Your task to perform on an android device: toggle translation in the chrome app Image 0: 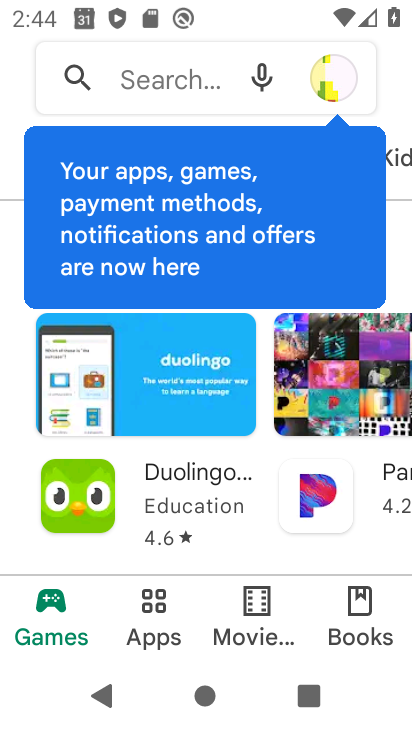
Step 0: press home button
Your task to perform on an android device: toggle translation in the chrome app Image 1: 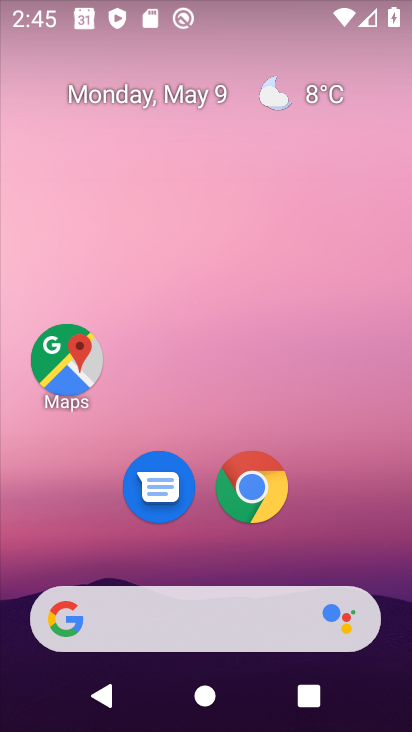
Step 1: drag from (208, 555) to (208, 63)
Your task to perform on an android device: toggle translation in the chrome app Image 2: 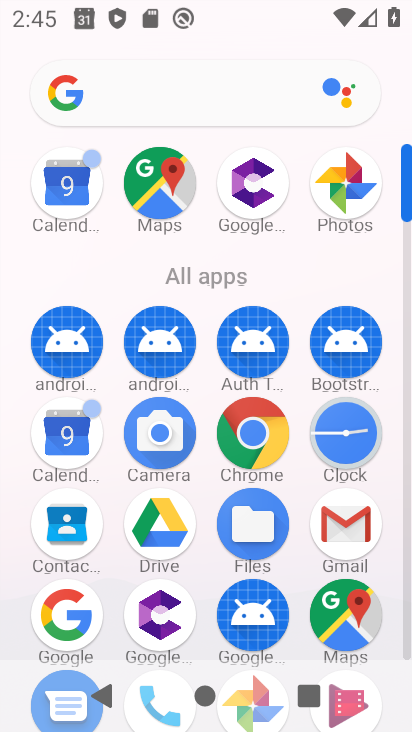
Step 2: click (254, 431)
Your task to perform on an android device: toggle translation in the chrome app Image 3: 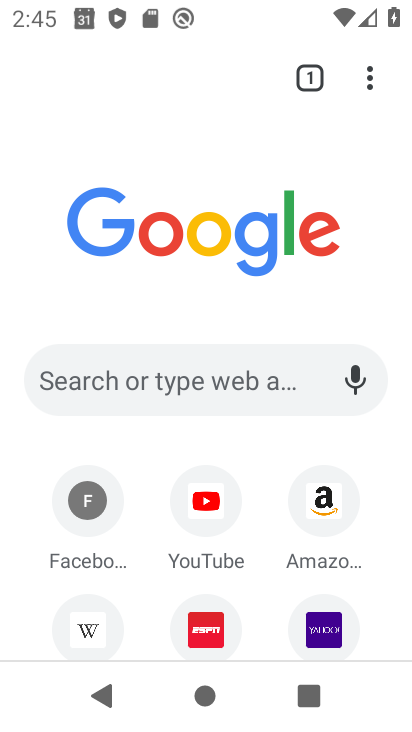
Step 3: click (365, 72)
Your task to perform on an android device: toggle translation in the chrome app Image 4: 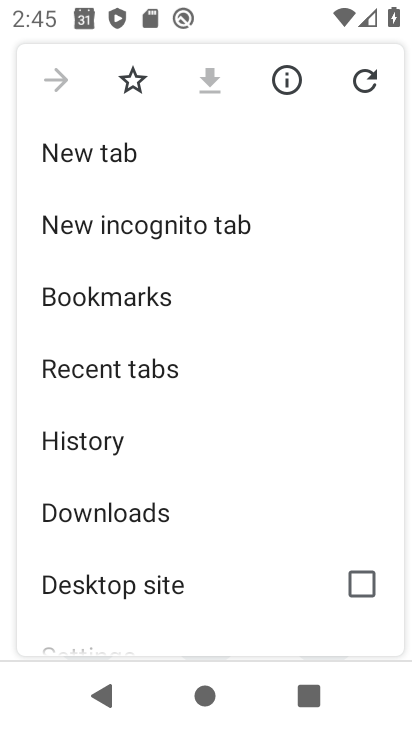
Step 4: drag from (187, 610) to (161, 188)
Your task to perform on an android device: toggle translation in the chrome app Image 5: 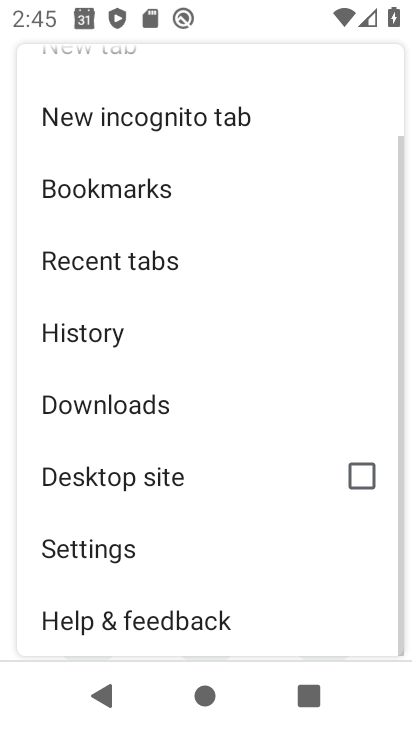
Step 5: click (141, 542)
Your task to perform on an android device: toggle translation in the chrome app Image 6: 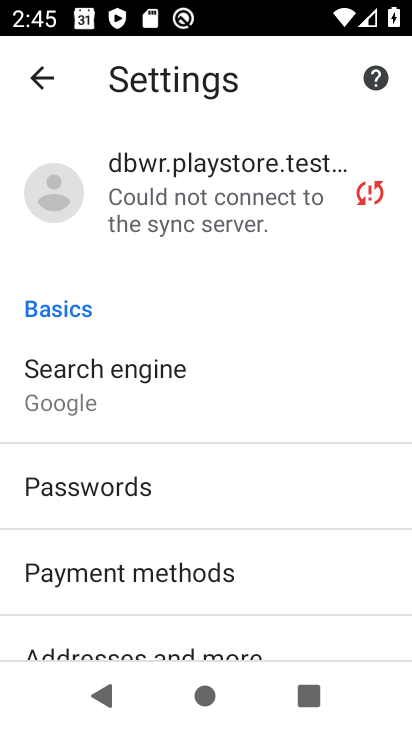
Step 6: drag from (198, 606) to (191, 253)
Your task to perform on an android device: toggle translation in the chrome app Image 7: 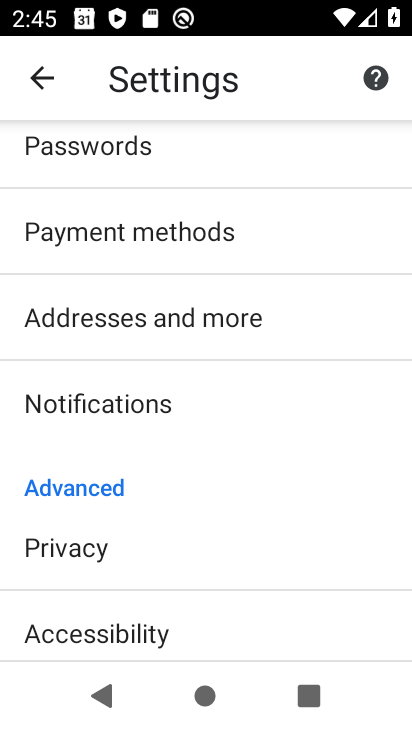
Step 7: drag from (190, 617) to (179, 370)
Your task to perform on an android device: toggle translation in the chrome app Image 8: 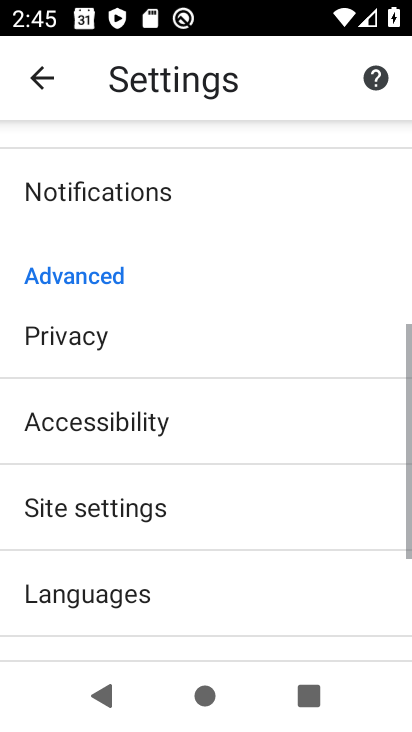
Step 8: click (178, 335)
Your task to perform on an android device: toggle translation in the chrome app Image 9: 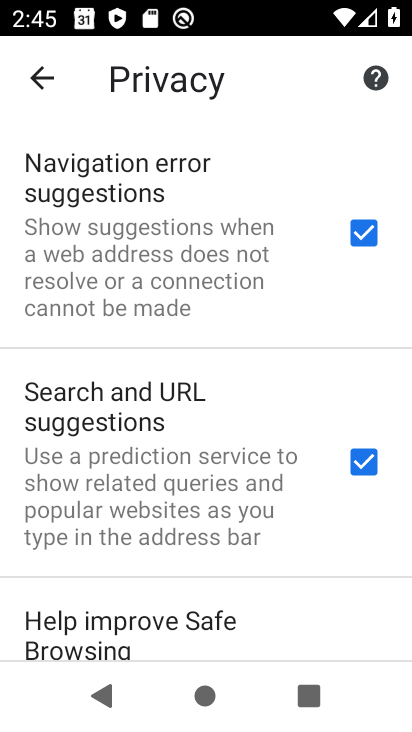
Step 9: click (44, 91)
Your task to perform on an android device: toggle translation in the chrome app Image 10: 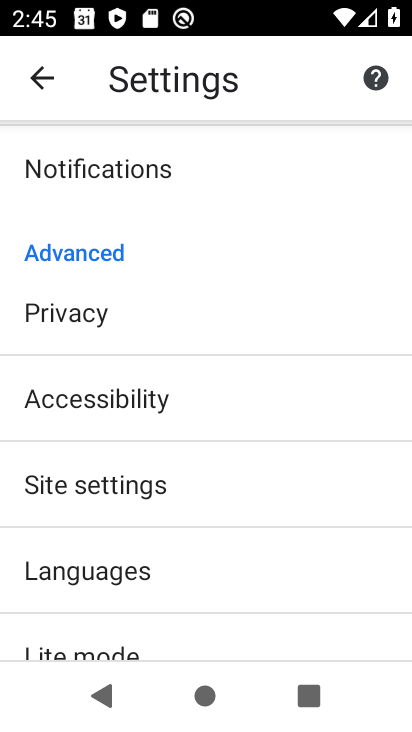
Step 10: click (152, 578)
Your task to perform on an android device: toggle translation in the chrome app Image 11: 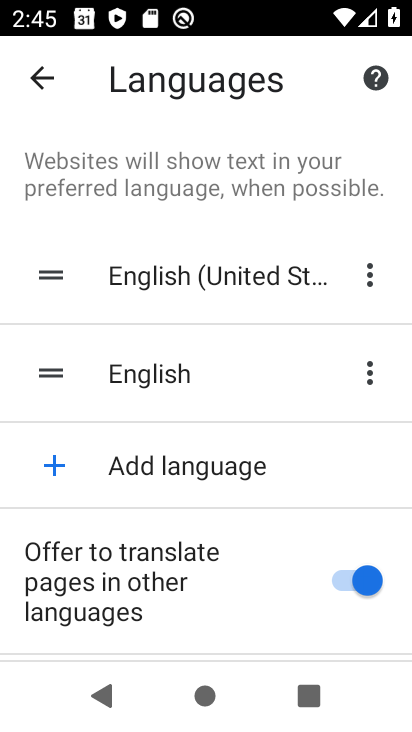
Step 11: click (347, 579)
Your task to perform on an android device: toggle translation in the chrome app Image 12: 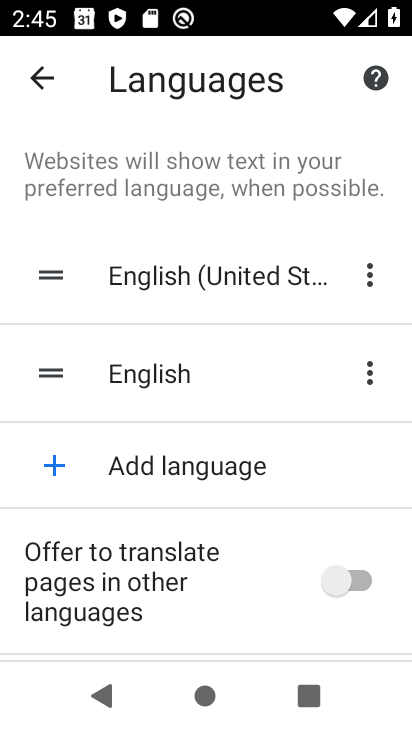
Step 12: task complete